Your task to perform on an android device: check android version Image 0: 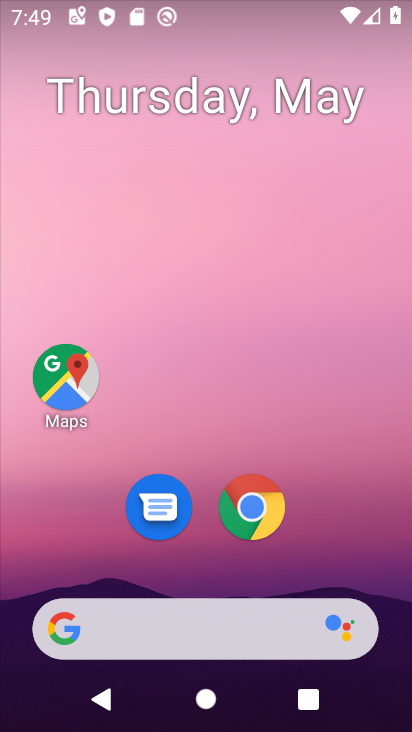
Step 0: drag from (268, 573) to (181, 162)
Your task to perform on an android device: check android version Image 1: 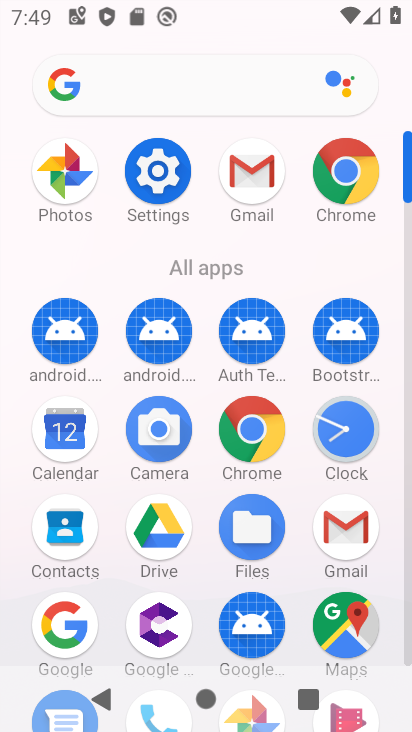
Step 1: click (352, 187)
Your task to perform on an android device: check android version Image 2: 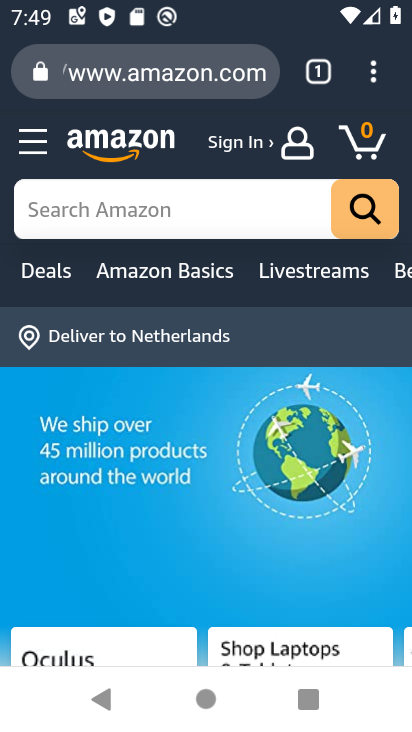
Step 2: click (376, 69)
Your task to perform on an android device: check android version Image 3: 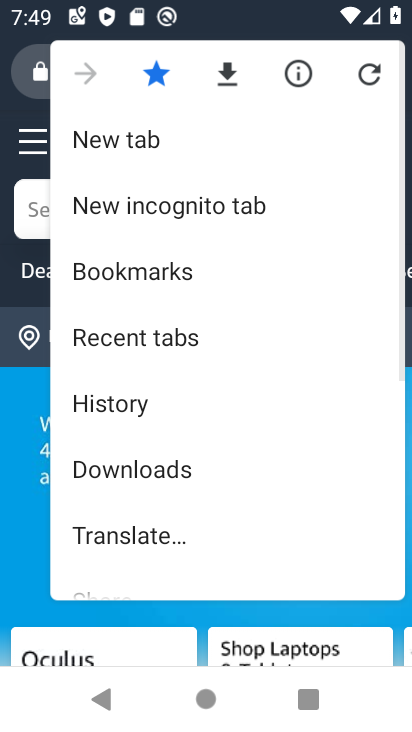
Step 3: drag from (194, 465) to (210, 127)
Your task to perform on an android device: check android version Image 4: 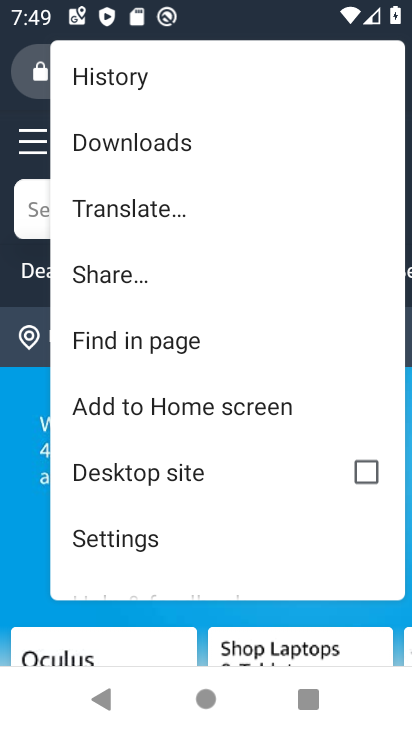
Step 4: drag from (178, 496) to (174, 434)
Your task to perform on an android device: check android version Image 5: 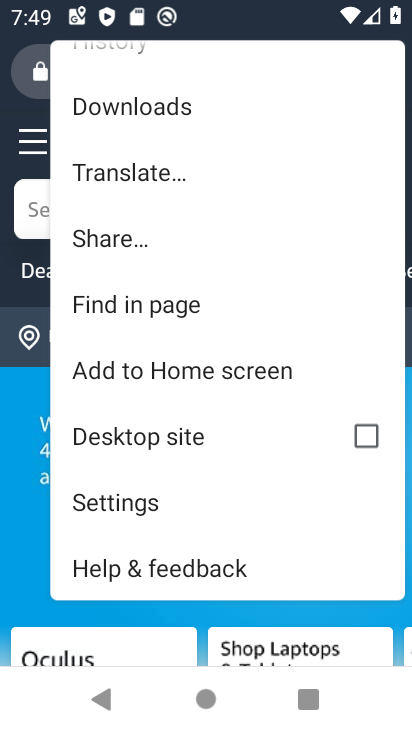
Step 5: click (130, 500)
Your task to perform on an android device: check android version Image 6: 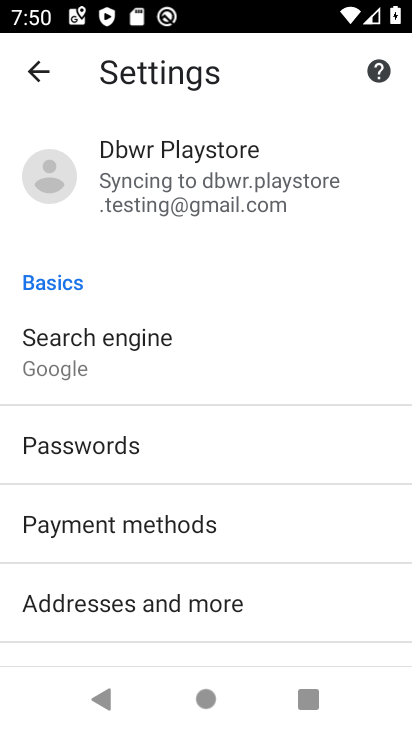
Step 6: drag from (165, 592) to (119, 251)
Your task to perform on an android device: check android version Image 7: 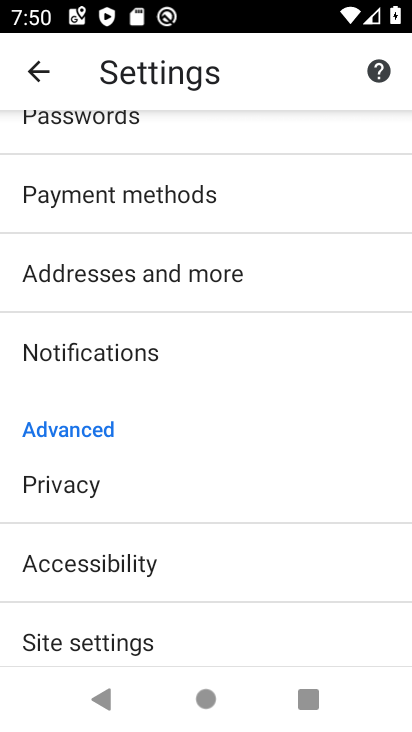
Step 7: drag from (150, 627) to (103, 275)
Your task to perform on an android device: check android version Image 8: 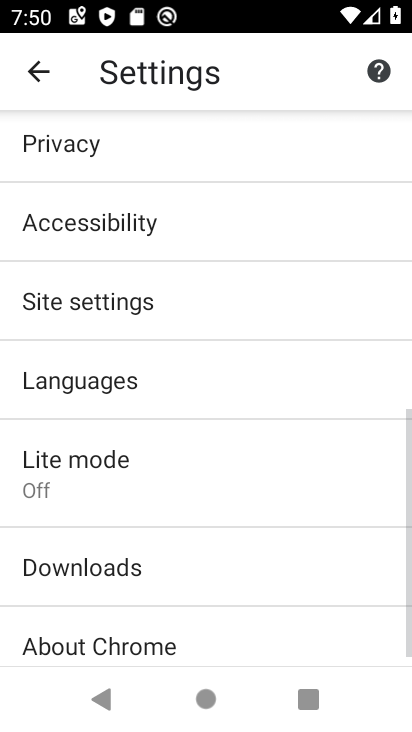
Step 8: drag from (135, 596) to (118, 377)
Your task to perform on an android device: check android version Image 9: 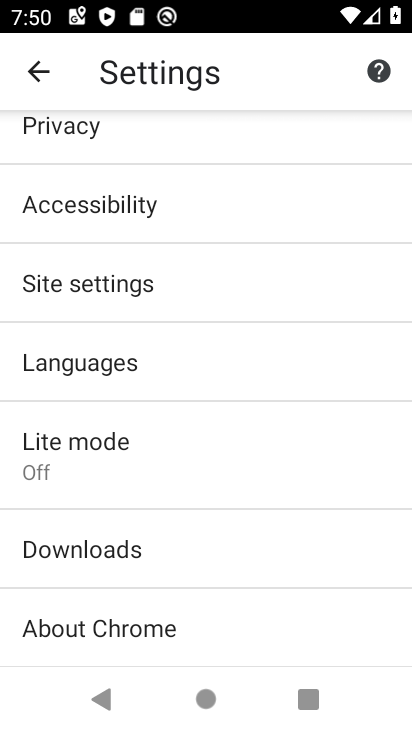
Step 9: click (126, 624)
Your task to perform on an android device: check android version Image 10: 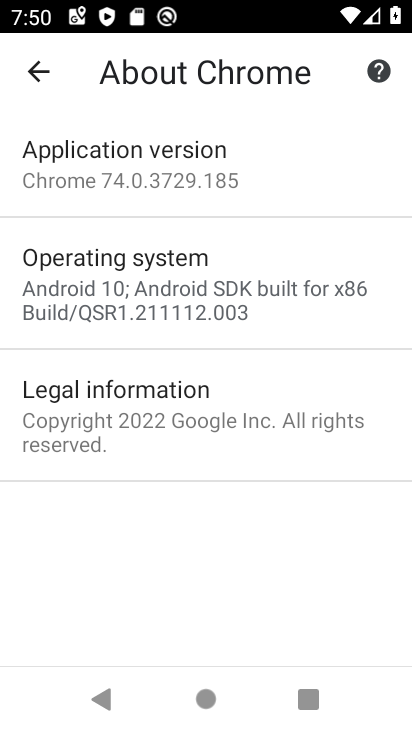
Step 10: task complete